Your task to perform on an android device: Turn off the flashlight Image 0: 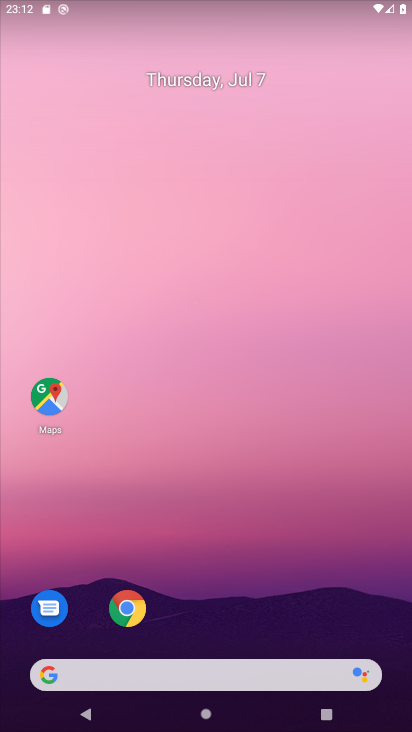
Step 0: drag from (165, 630) to (340, 206)
Your task to perform on an android device: Turn off the flashlight Image 1: 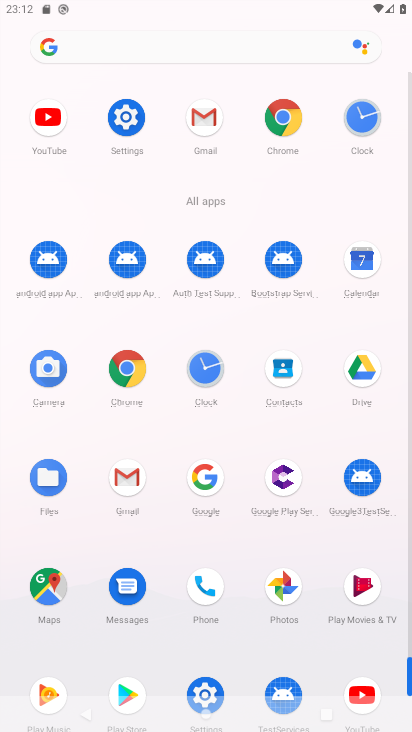
Step 1: click (127, 109)
Your task to perform on an android device: Turn off the flashlight Image 2: 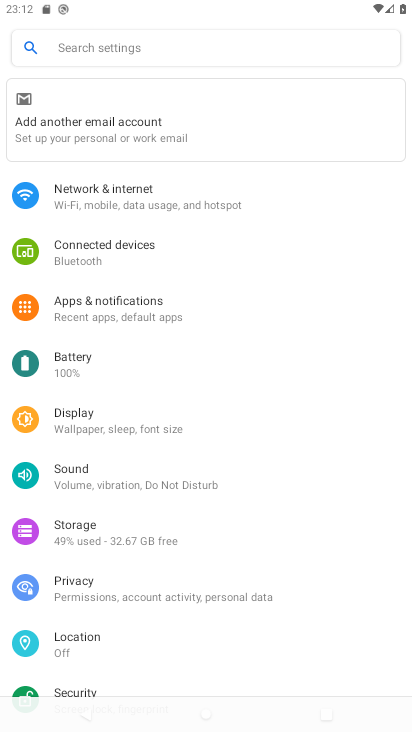
Step 2: task complete